Your task to perform on an android device: Go to CNN.com Image 0: 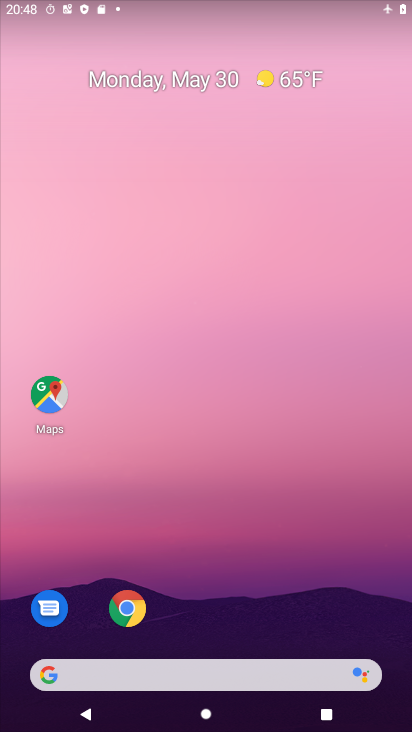
Step 0: click (137, 602)
Your task to perform on an android device: Go to CNN.com Image 1: 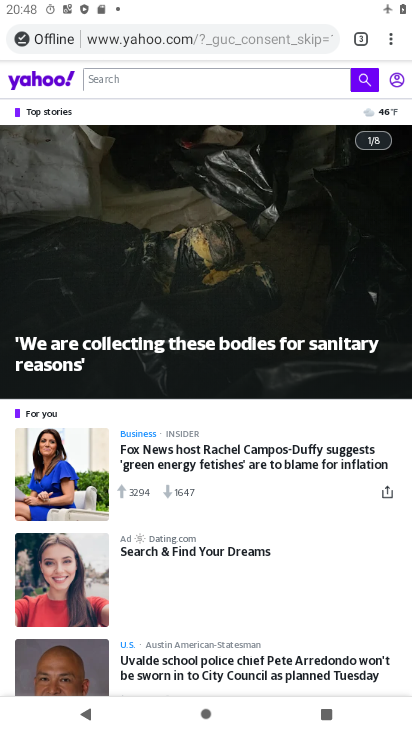
Step 1: click (357, 40)
Your task to perform on an android device: Go to CNN.com Image 2: 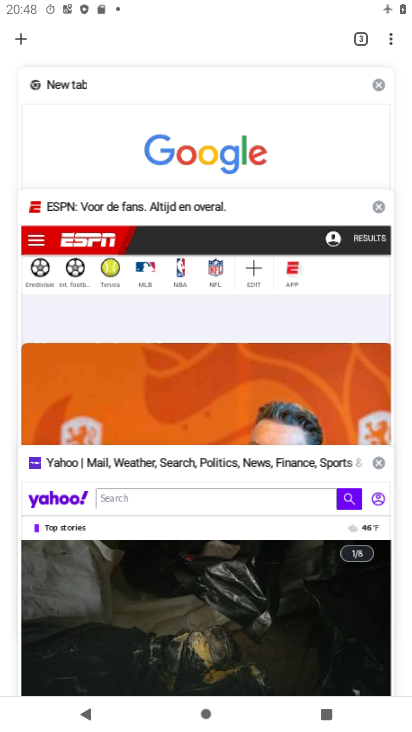
Step 2: click (79, 95)
Your task to perform on an android device: Go to CNN.com Image 3: 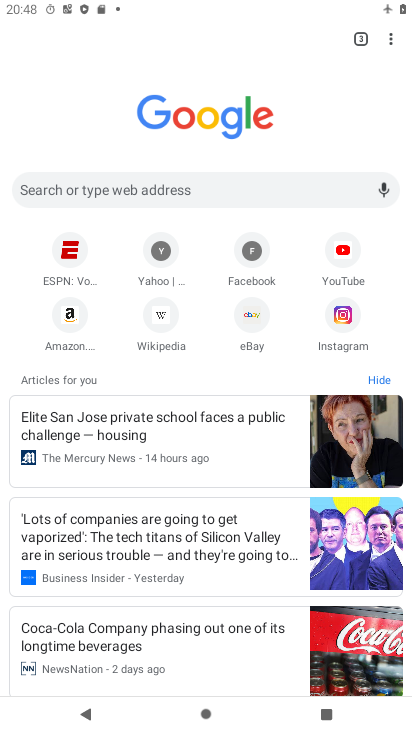
Step 3: click (190, 188)
Your task to perform on an android device: Go to CNN.com Image 4: 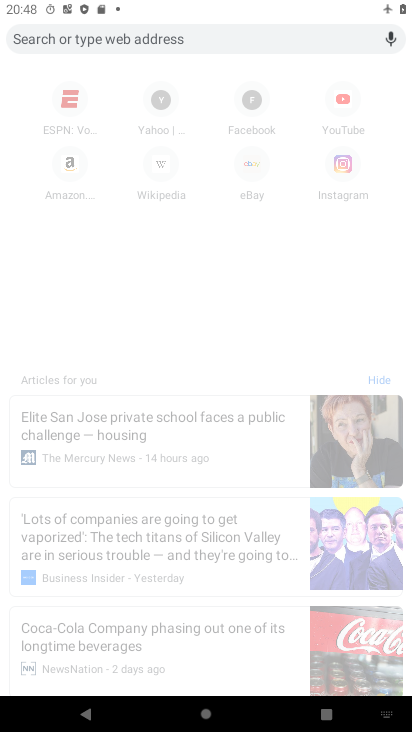
Step 4: type "CNN.com"
Your task to perform on an android device: Go to CNN.com Image 5: 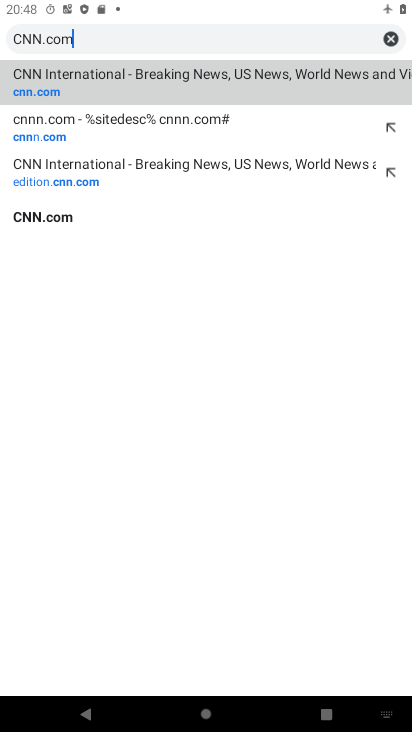
Step 5: click (100, 71)
Your task to perform on an android device: Go to CNN.com Image 6: 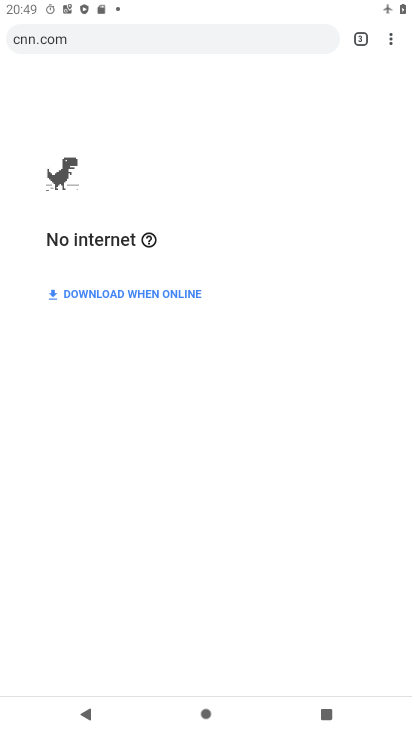
Step 6: task complete